Your task to perform on an android device: turn on airplane mode Image 0: 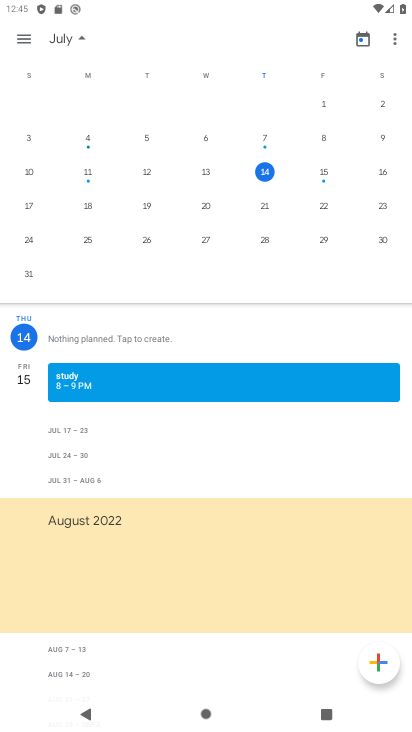
Step 0: press home button
Your task to perform on an android device: turn on airplane mode Image 1: 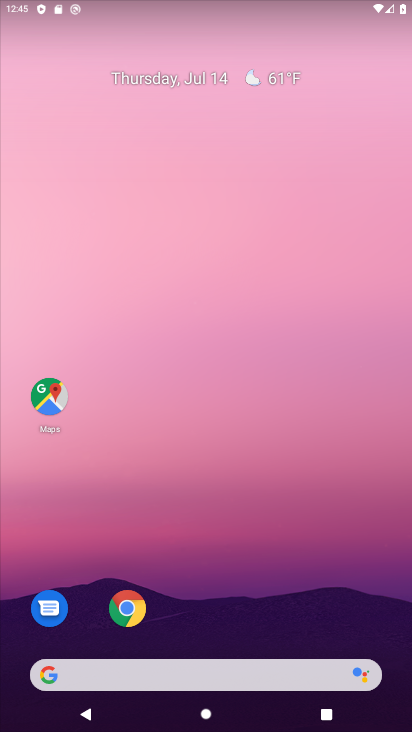
Step 1: drag from (307, 594) to (326, 99)
Your task to perform on an android device: turn on airplane mode Image 2: 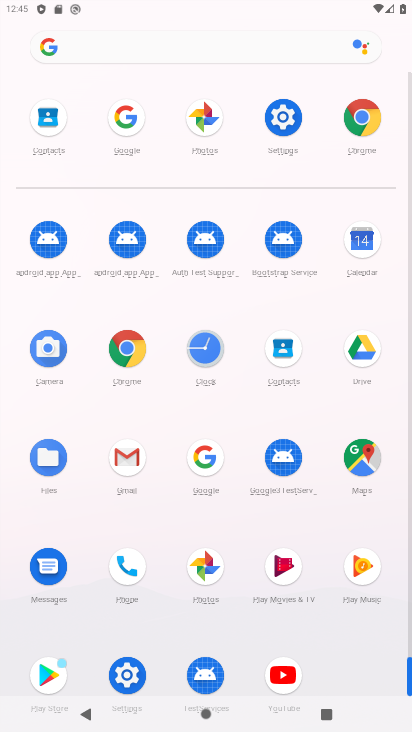
Step 2: click (286, 123)
Your task to perform on an android device: turn on airplane mode Image 3: 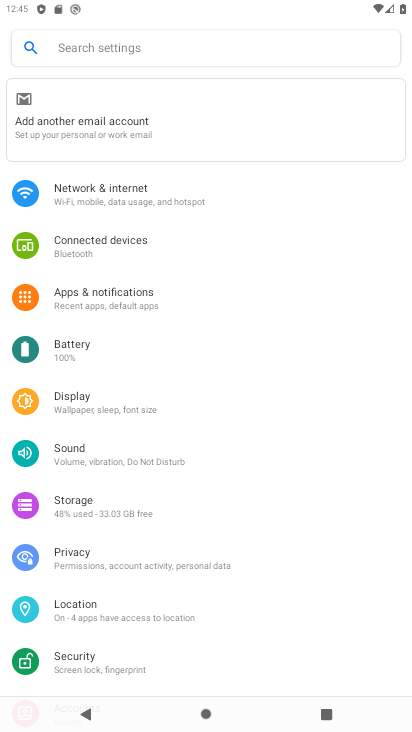
Step 3: drag from (334, 443) to (327, 316)
Your task to perform on an android device: turn on airplane mode Image 4: 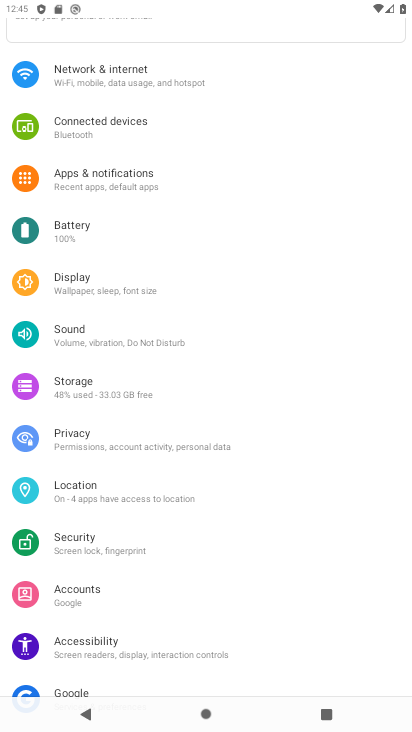
Step 4: drag from (320, 498) to (317, 377)
Your task to perform on an android device: turn on airplane mode Image 5: 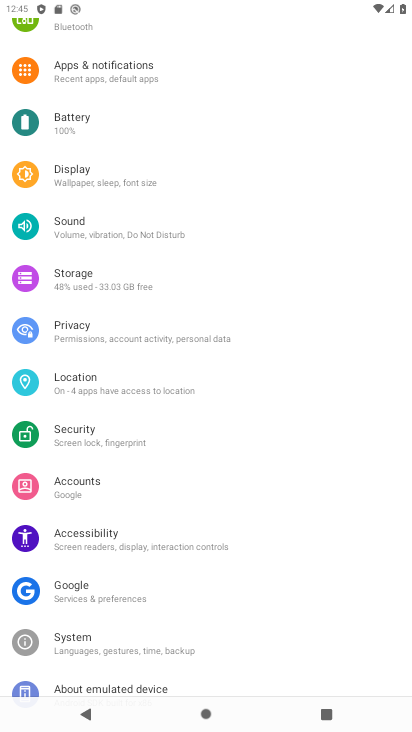
Step 5: drag from (329, 494) to (320, 384)
Your task to perform on an android device: turn on airplane mode Image 6: 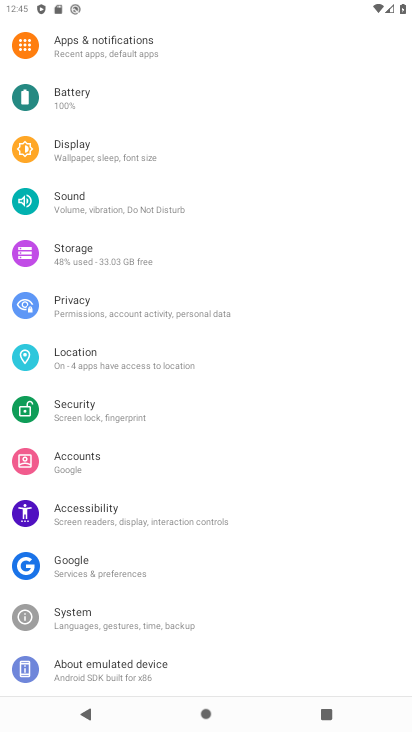
Step 6: drag from (304, 542) to (307, 403)
Your task to perform on an android device: turn on airplane mode Image 7: 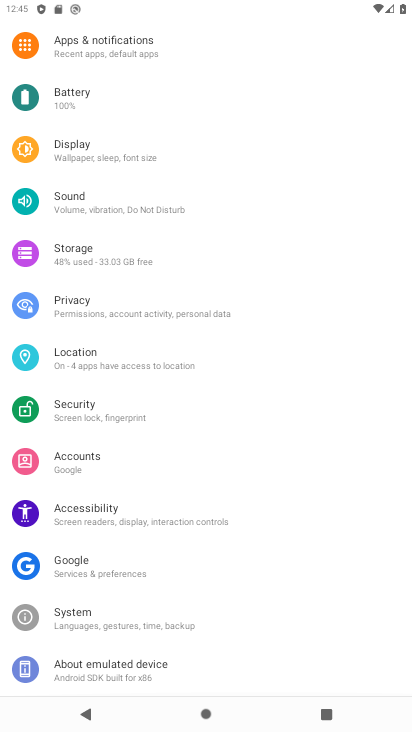
Step 7: drag from (307, 306) to (301, 383)
Your task to perform on an android device: turn on airplane mode Image 8: 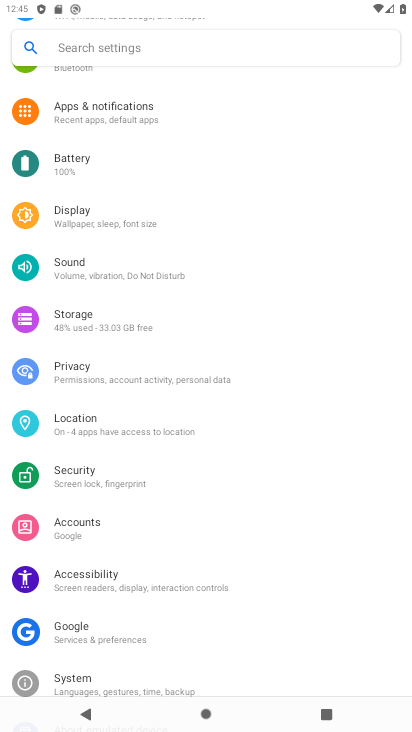
Step 8: drag from (305, 259) to (313, 352)
Your task to perform on an android device: turn on airplane mode Image 9: 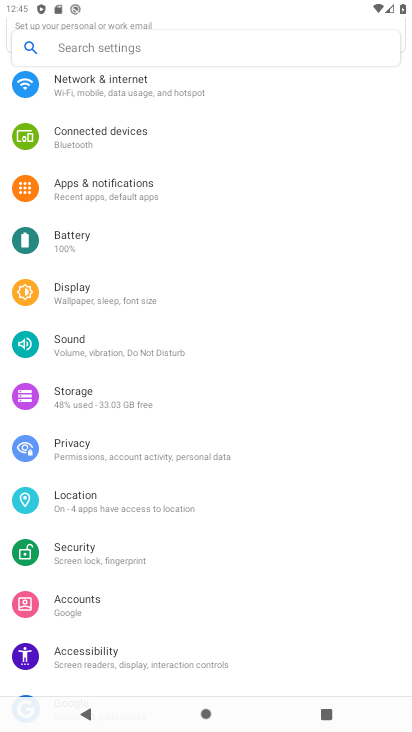
Step 9: drag from (317, 227) to (315, 334)
Your task to perform on an android device: turn on airplane mode Image 10: 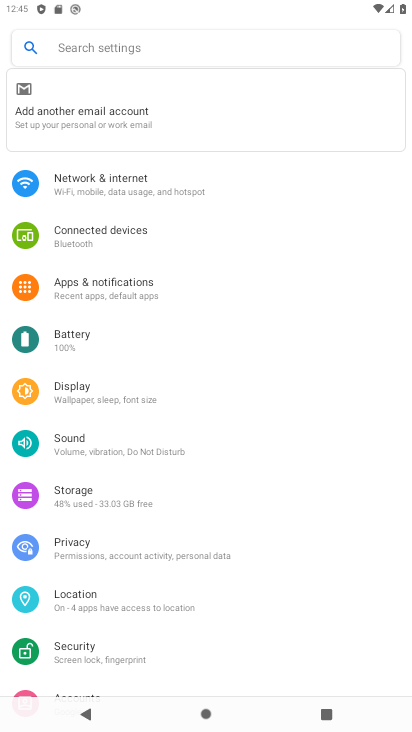
Step 10: drag from (306, 228) to (310, 335)
Your task to perform on an android device: turn on airplane mode Image 11: 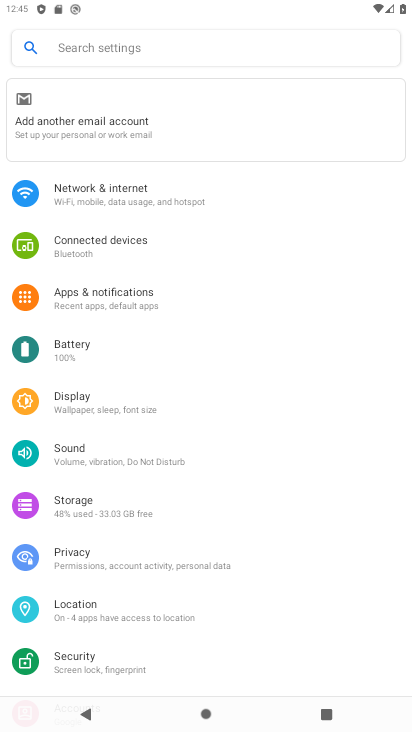
Step 11: click (186, 201)
Your task to perform on an android device: turn on airplane mode Image 12: 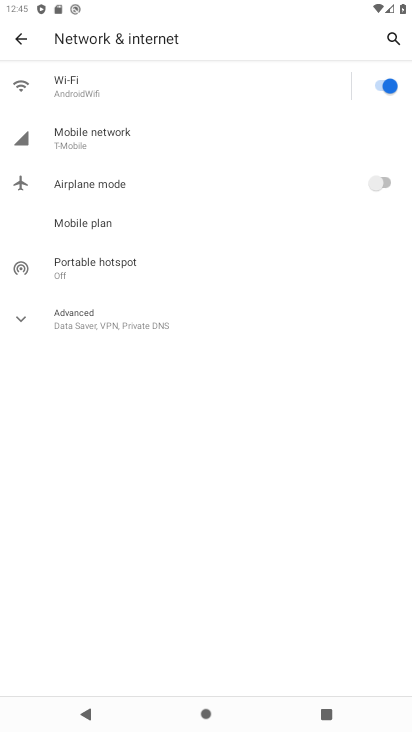
Step 12: click (376, 184)
Your task to perform on an android device: turn on airplane mode Image 13: 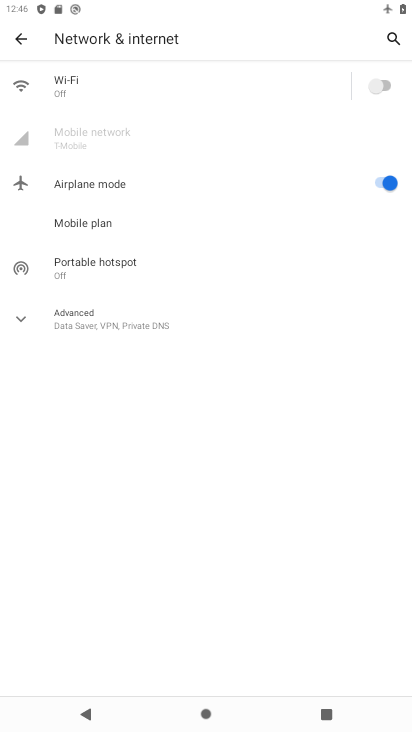
Step 13: task complete